Your task to perform on an android device: See recent photos Image 0: 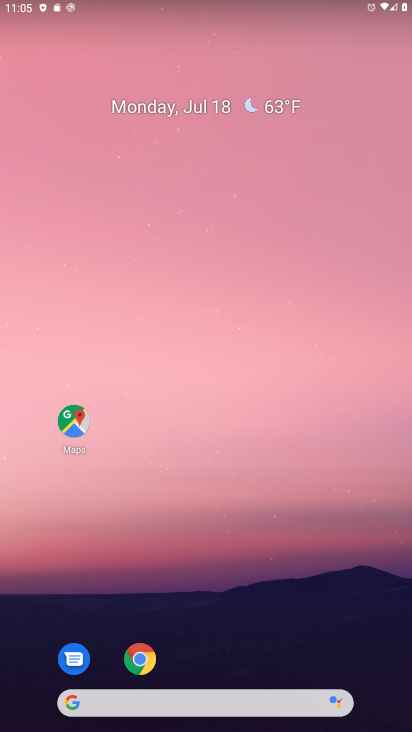
Step 0: drag from (206, 652) to (254, 170)
Your task to perform on an android device: See recent photos Image 1: 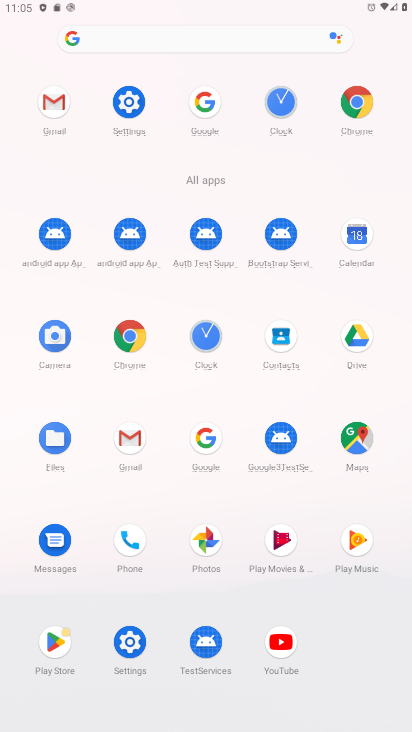
Step 1: click (209, 541)
Your task to perform on an android device: See recent photos Image 2: 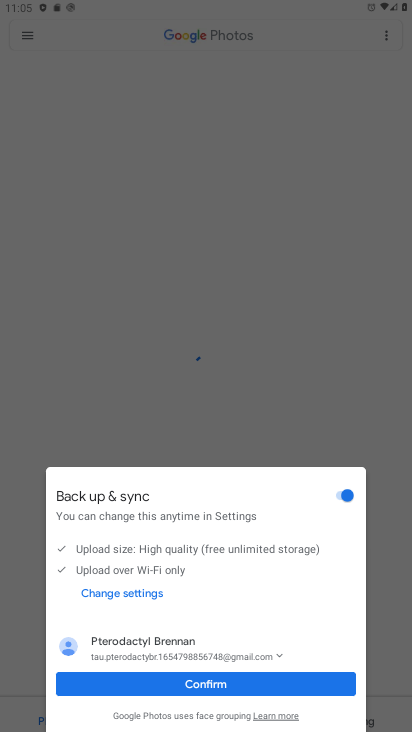
Step 2: click (206, 687)
Your task to perform on an android device: See recent photos Image 3: 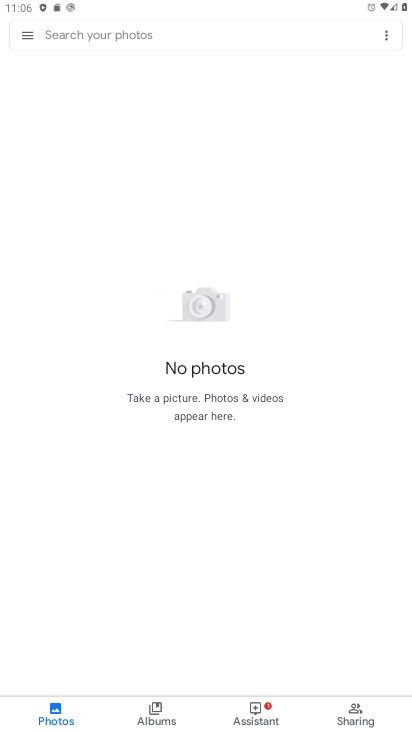
Step 3: task complete